Your task to perform on an android device: Open the calendar and show me this week's events Image 0: 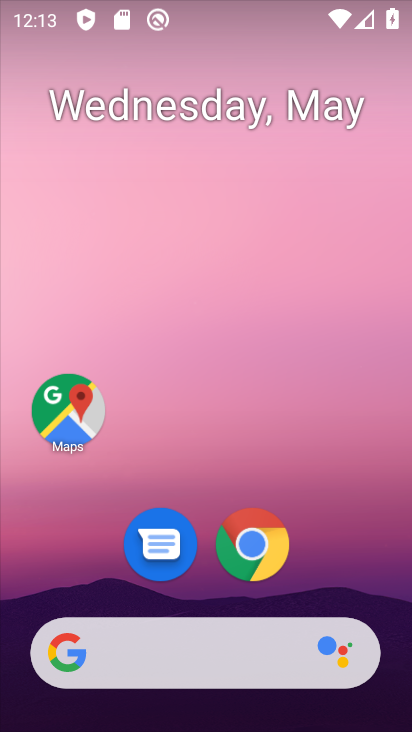
Step 0: drag from (371, 516) to (371, 107)
Your task to perform on an android device: Open the calendar and show me this week's events Image 1: 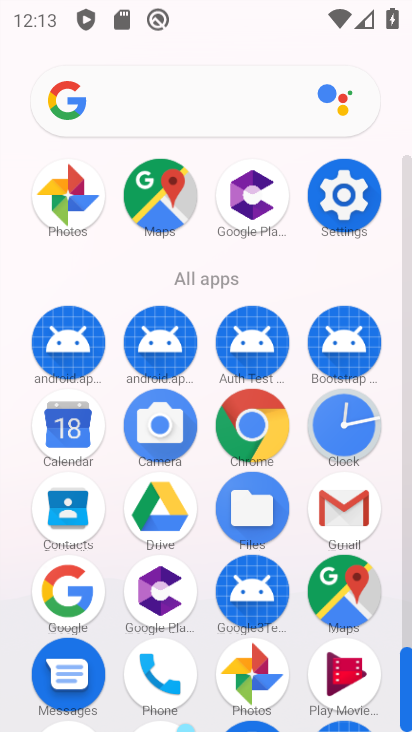
Step 1: click (79, 433)
Your task to perform on an android device: Open the calendar and show me this week's events Image 2: 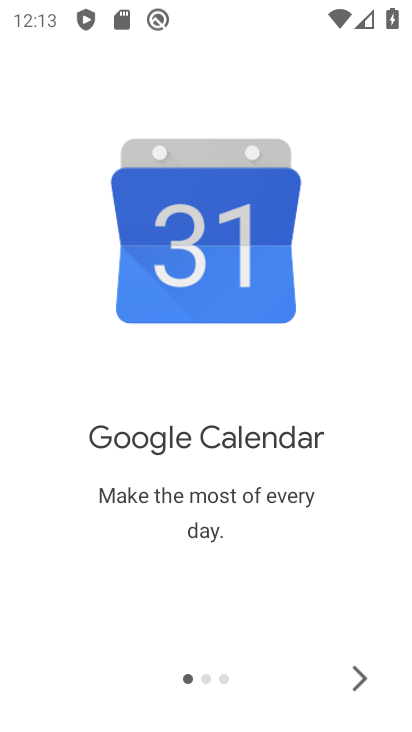
Step 2: click (344, 679)
Your task to perform on an android device: Open the calendar and show me this week's events Image 3: 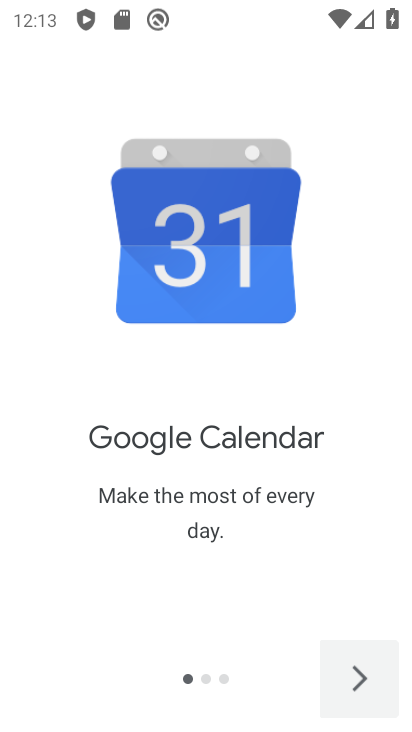
Step 3: click (345, 677)
Your task to perform on an android device: Open the calendar and show me this week's events Image 4: 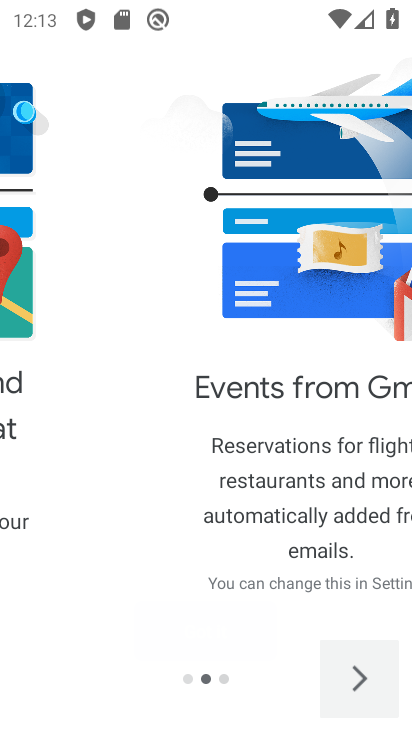
Step 4: click (345, 677)
Your task to perform on an android device: Open the calendar and show me this week's events Image 5: 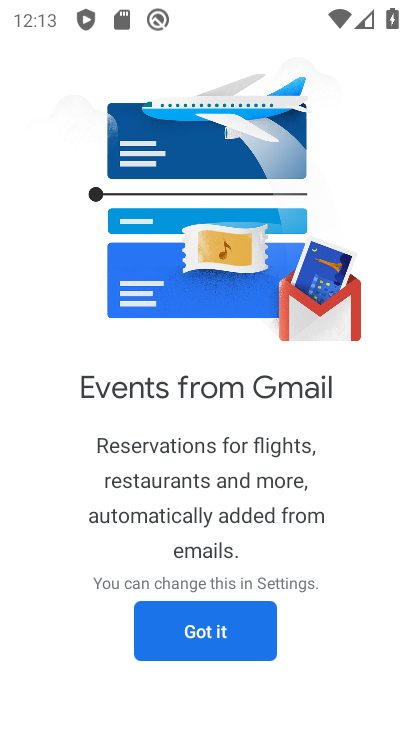
Step 5: click (251, 643)
Your task to perform on an android device: Open the calendar and show me this week's events Image 6: 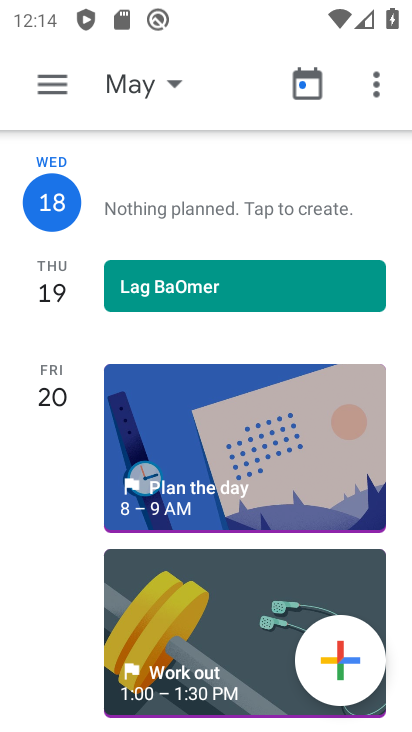
Step 6: click (59, 80)
Your task to perform on an android device: Open the calendar and show me this week's events Image 7: 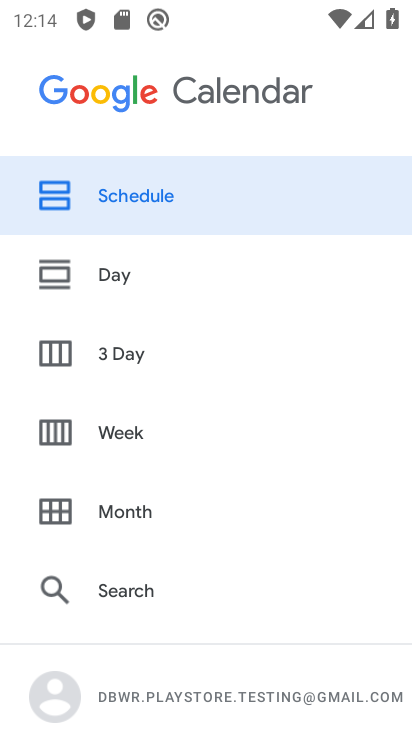
Step 7: click (126, 421)
Your task to perform on an android device: Open the calendar and show me this week's events Image 8: 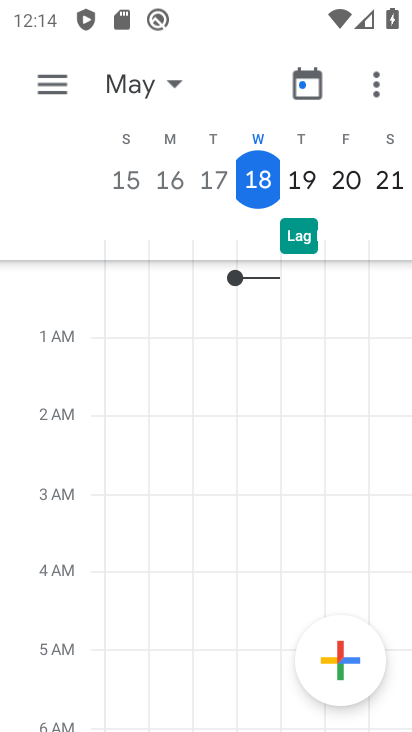
Step 8: task complete